Your task to perform on an android device: open app "Speedtest by Ookla" Image 0: 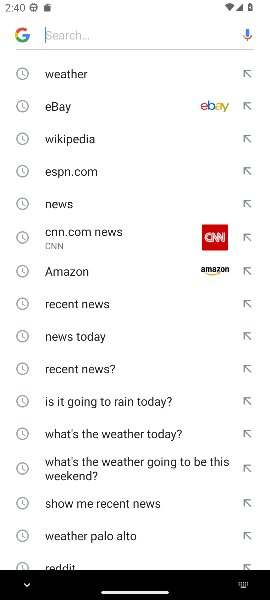
Step 0: press home button
Your task to perform on an android device: open app "Speedtest by Ookla" Image 1: 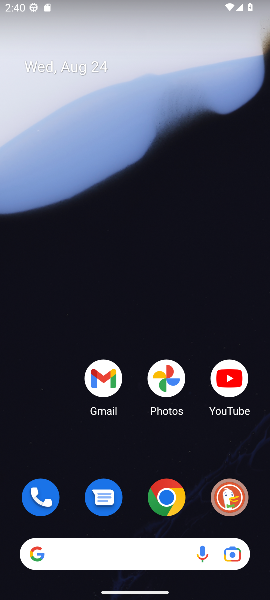
Step 1: drag from (141, 551) to (142, 147)
Your task to perform on an android device: open app "Speedtest by Ookla" Image 2: 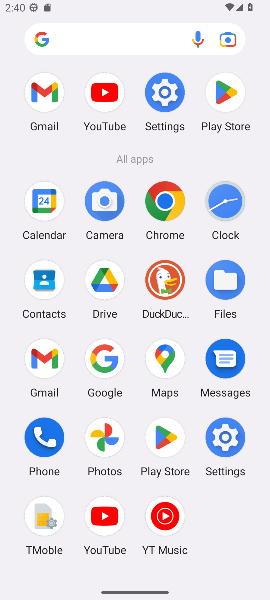
Step 2: click (224, 94)
Your task to perform on an android device: open app "Speedtest by Ookla" Image 3: 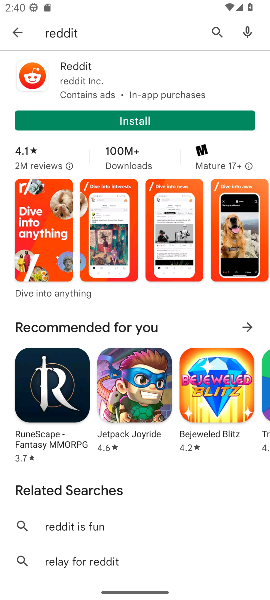
Step 3: press back button
Your task to perform on an android device: open app "Speedtest by Ookla" Image 4: 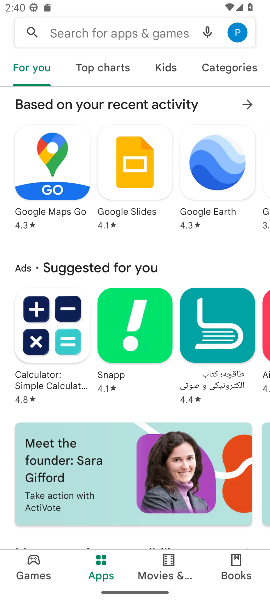
Step 4: click (109, 33)
Your task to perform on an android device: open app "Speedtest by Ookla" Image 5: 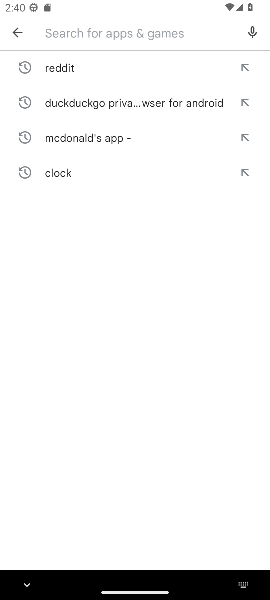
Step 5: type "Speedtest by Ookla"
Your task to perform on an android device: open app "Speedtest by Ookla" Image 6: 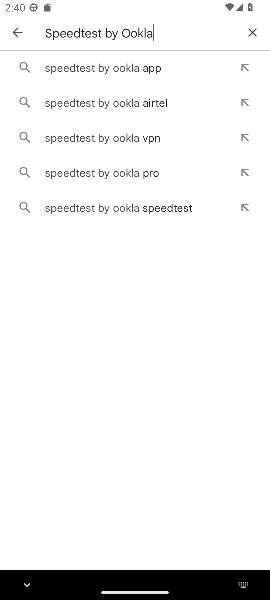
Step 6: click (135, 70)
Your task to perform on an android device: open app "Speedtest by Ookla" Image 7: 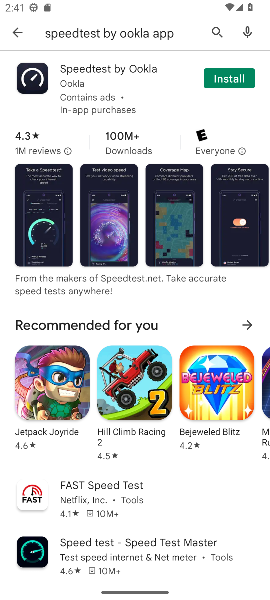
Step 7: task complete